Your task to perform on an android device: Open Youtube and go to the subscriptions tab Image 0: 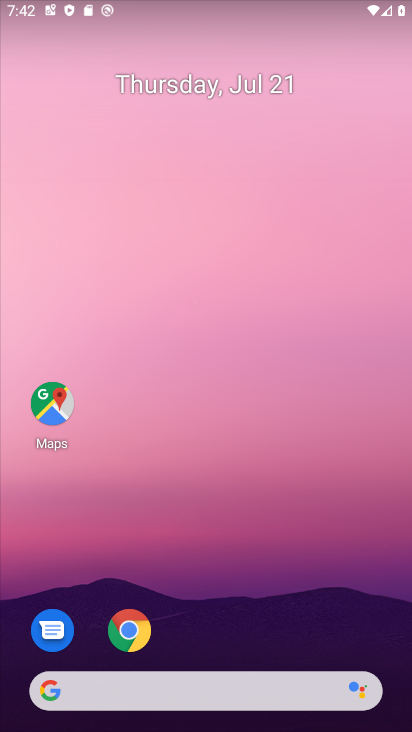
Step 0: drag from (256, 714) to (312, 12)
Your task to perform on an android device: Open Youtube and go to the subscriptions tab Image 1: 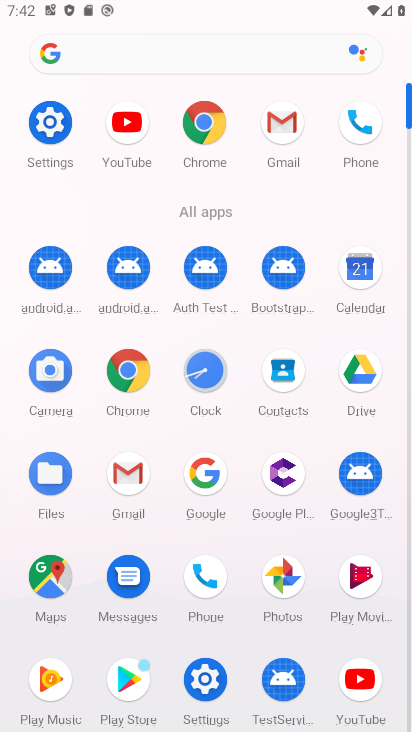
Step 1: click (127, 132)
Your task to perform on an android device: Open Youtube and go to the subscriptions tab Image 2: 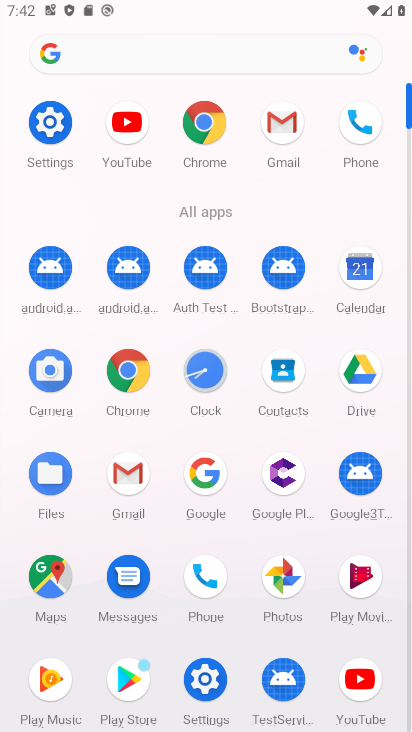
Step 2: click (127, 132)
Your task to perform on an android device: Open Youtube and go to the subscriptions tab Image 3: 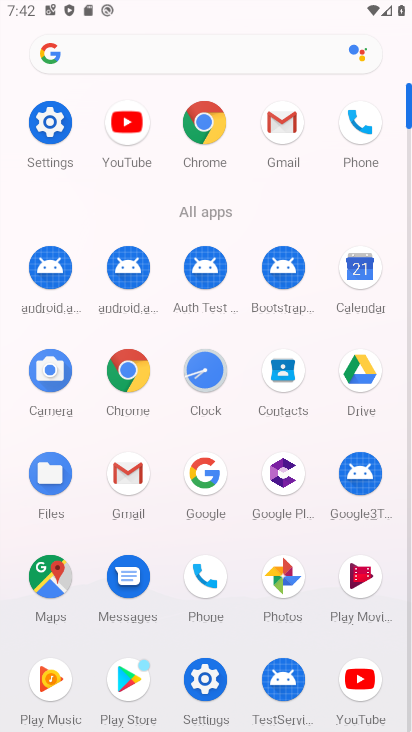
Step 3: click (127, 132)
Your task to perform on an android device: Open Youtube and go to the subscriptions tab Image 4: 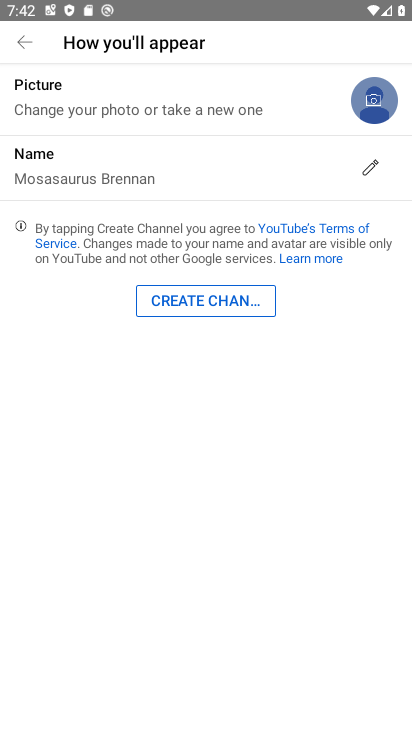
Step 4: click (21, 44)
Your task to perform on an android device: Open Youtube and go to the subscriptions tab Image 5: 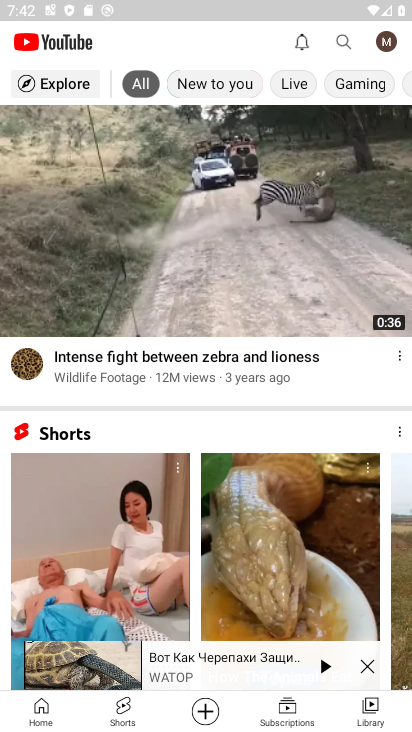
Step 5: click (282, 709)
Your task to perform on an android device: Open Youtube and go to the subscriptions tab Image 6: 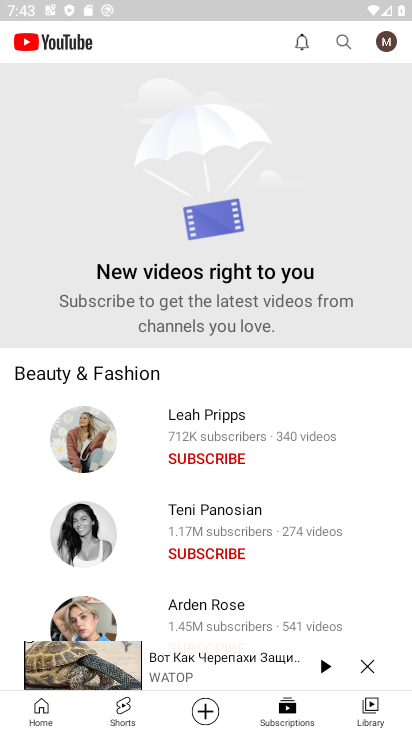
Step 6: task complete